Your task to perform on an android device: Go to wifi settings Image 0: 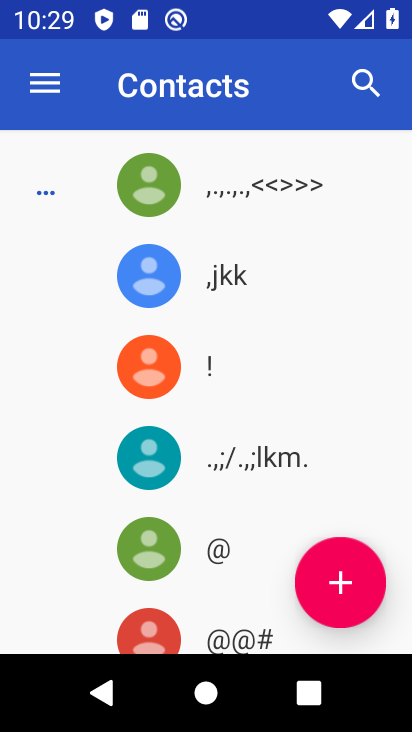
Step 0: press home button
Your task to perform on an android device: Go to wifi settings Image 1: 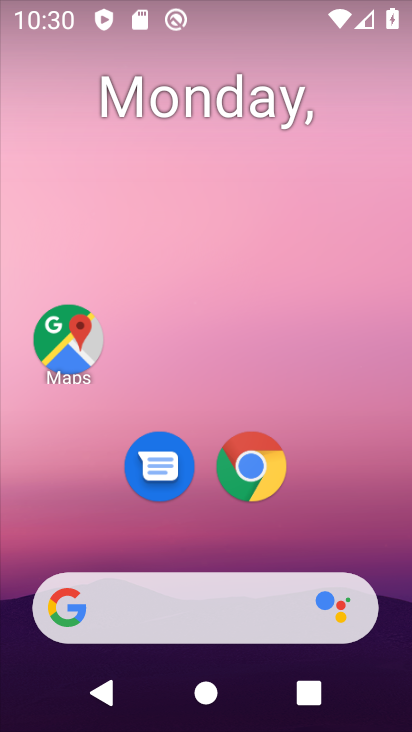
Step 1: drag from (148, 565) to (278, 22)
Your task to perform on an android device: Go to wifi settings Image 2: 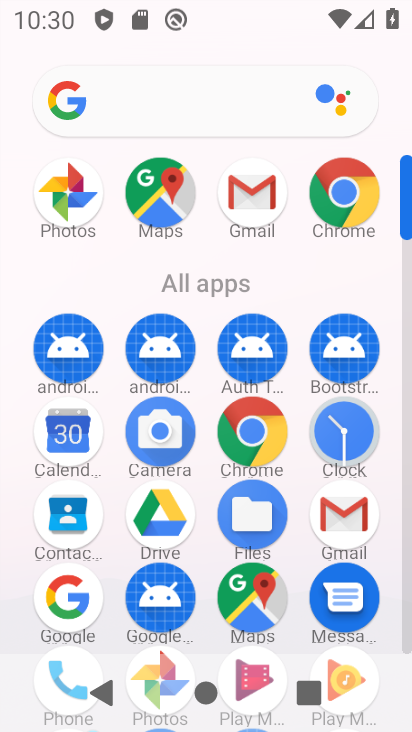
Step 2: drag from (192, 576) to (251, 281)
Your task to perform on an android device: Go to wifi settings Image 3: 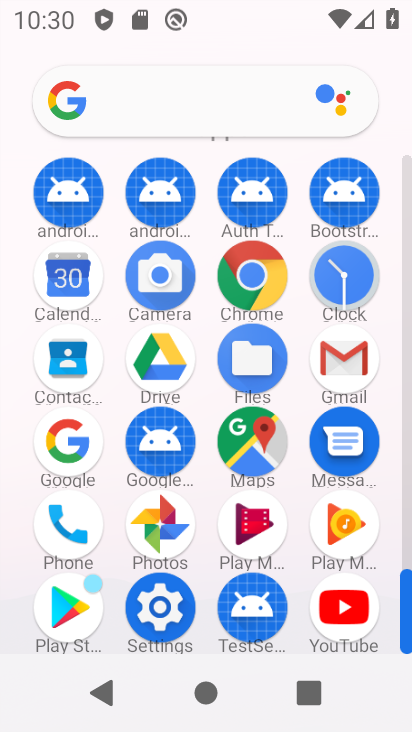
Step 3: click (156, 617)
Your task to perform on an android device: Go to wifi settings Image 4: 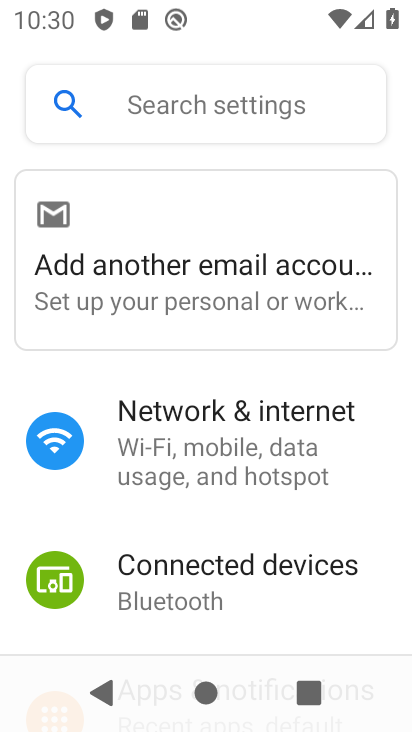
Step 4: click (288, 449)
Your task to perform on an android device: Go to wifi settings Image 5: 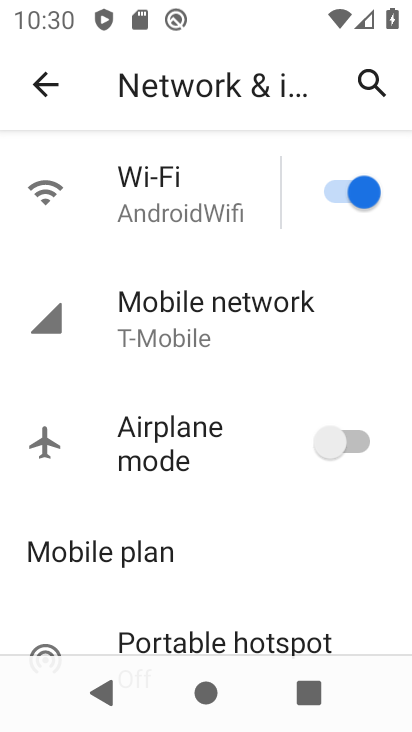
Step 5: click (189, 229)
Your task to perform on an android device: Go to wifi settings Image 6: 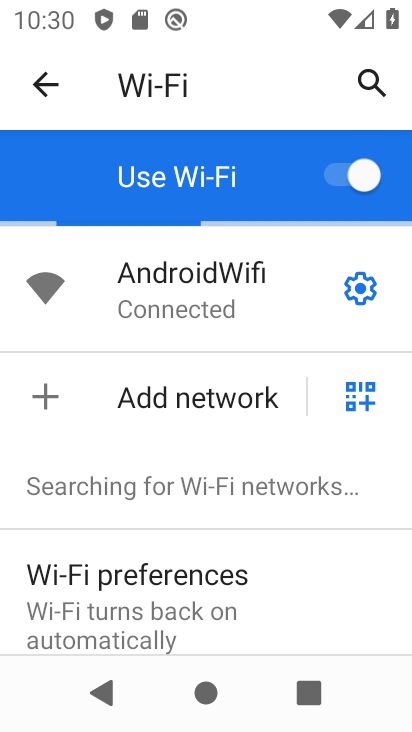
Step 6: task complete